Your task to perform on an android device: Search for seafood restaurants on Google Maps Image 0: 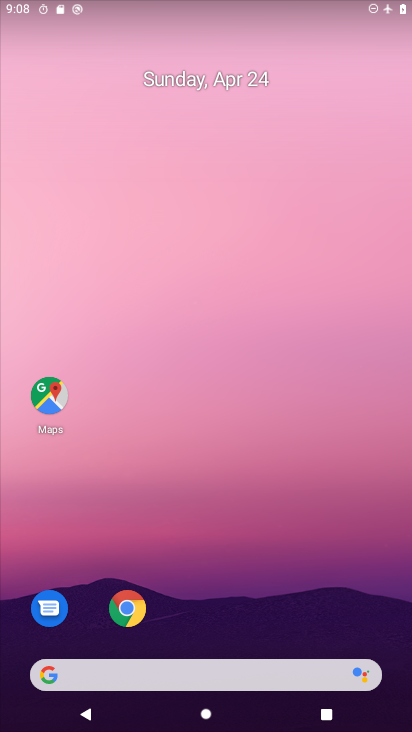
Step 0: click (44, 388)
Your task to perform on an android device: Search for seafood restaurants on Google Maps Image 1: 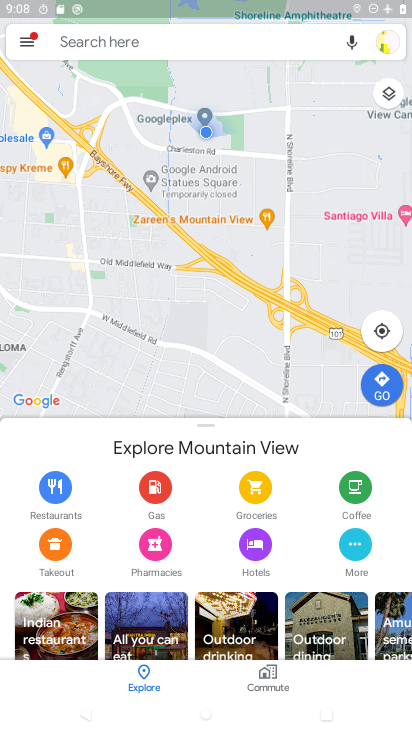
Step 1: click (202, 38)
Your task to perform on an android device: Search for seafood restaurants on Google Maps Image 2: 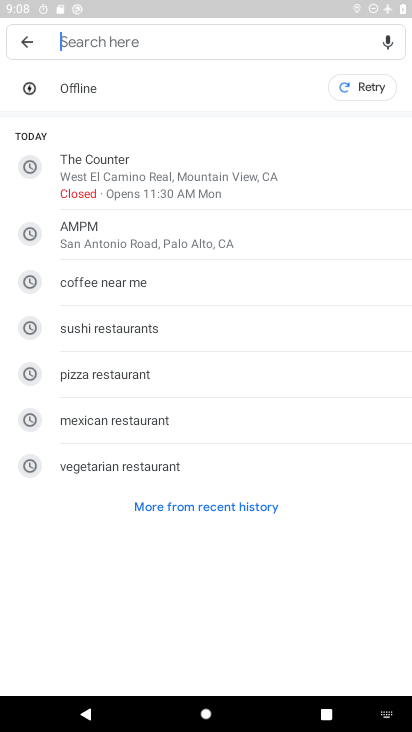
Step 2: type "seafood restaurants"
Your task to perform on an android device: Search for seafood restaurants on Google Maps Image 3: 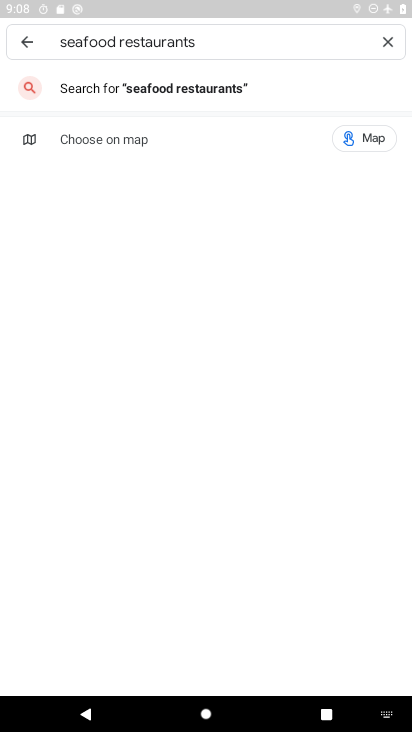
Step 3: click (185, 78)
Your task to perform on an android device: Search for seafood restaurants on Google Maps Image 4: 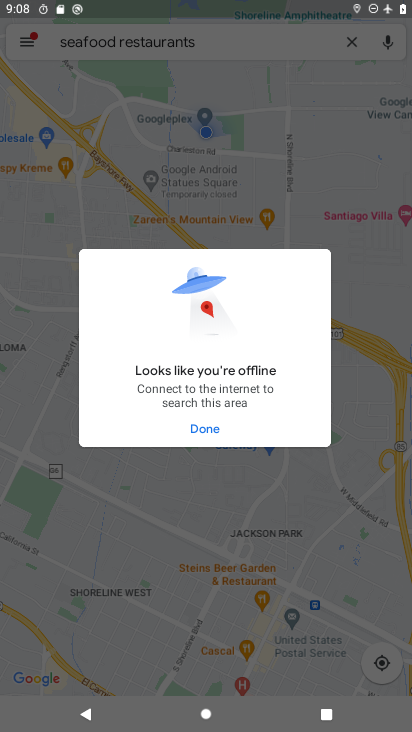
Step 4: task complete